Your task to perform on an android device: set the timer Image 0: 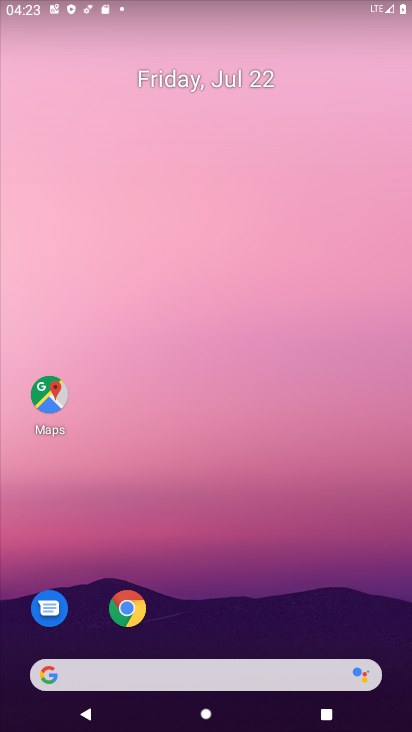
Step 0: drag from (234, 715) to (228, 197)
Your task to perform on an android device: set the timer Image 1: 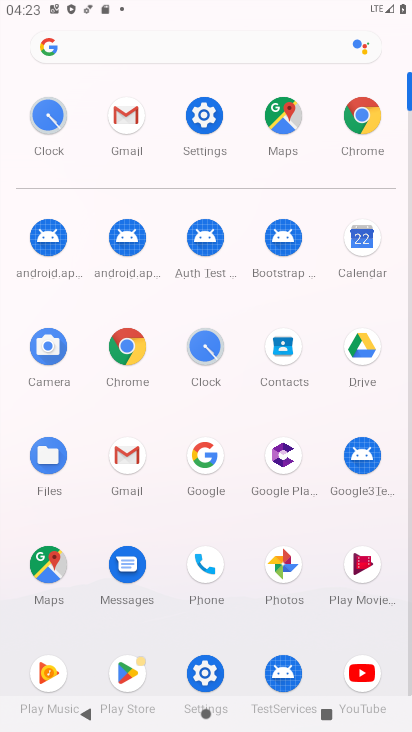
Step 1: click (211, 348)
Your task to perform on an android device: set the timer Image 2: 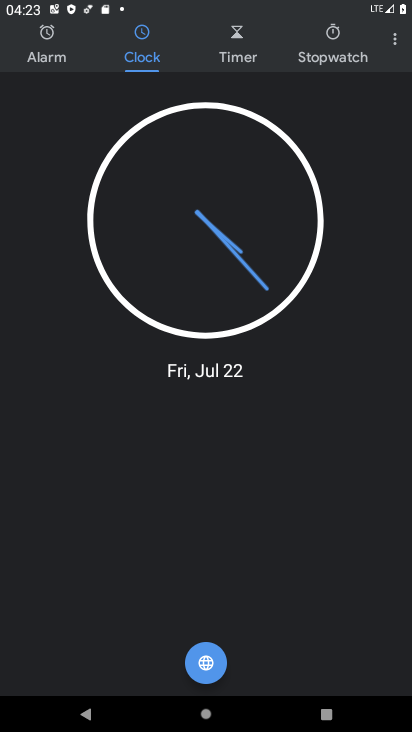
Step 2: click (236, 41)
Your task to perform on an android device: set the timer Image 3: 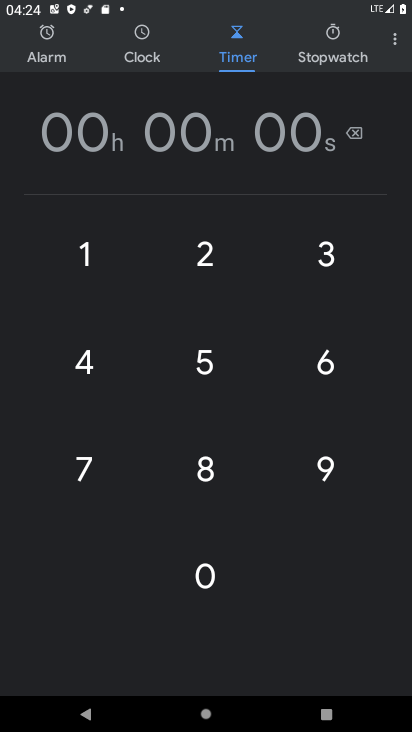
Step 3: click (206, 355)
Your task to perform on an android device: set the timer Image 4: 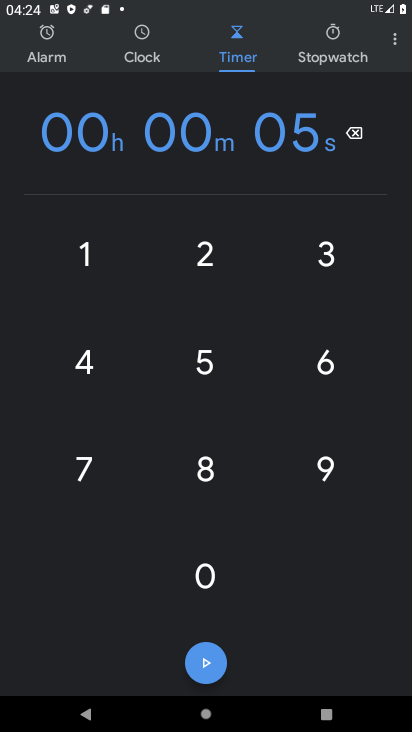
Step 4: click (200, 462)
Your task to perform on an android device: set the timer Image 5: 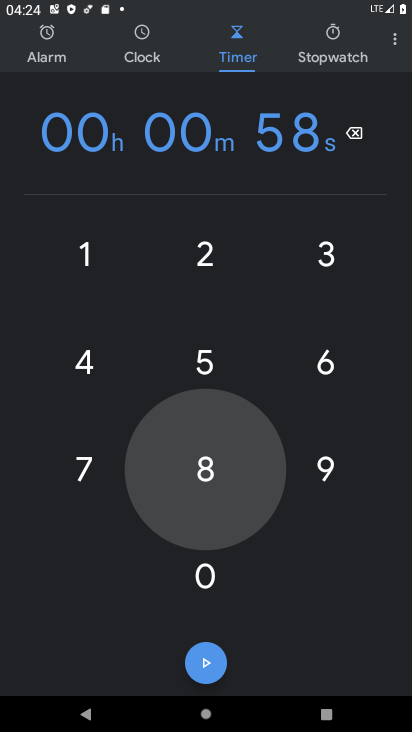
Step 5: click (80, 471)
Your task to perform on an android device: set the timer Image 6: 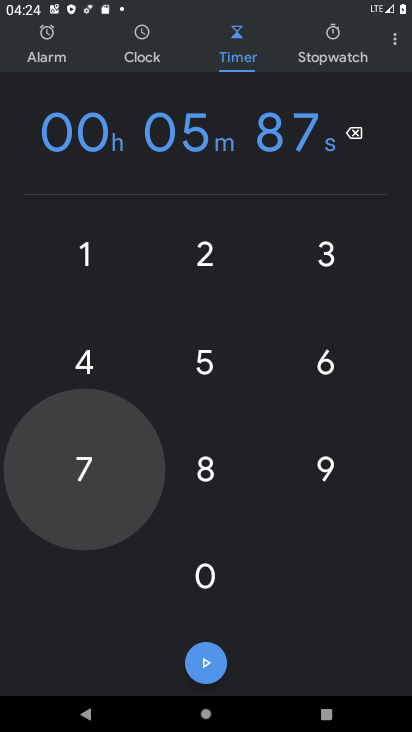
Step 6: click (90, 365)
Your task to perform on an android device: set the timer Image 7: 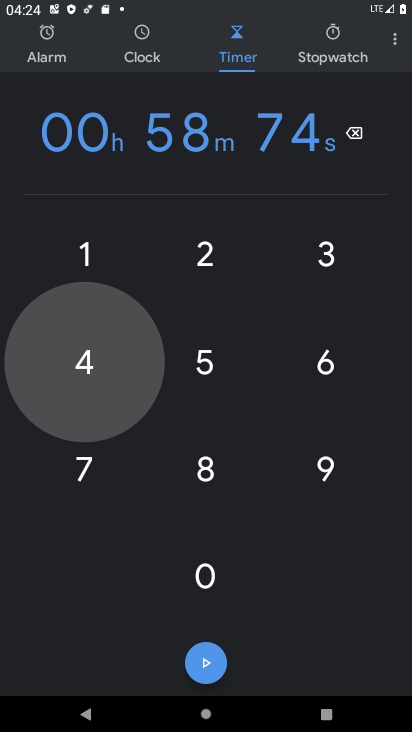
Step 7: click (84, 277)
Your task to perform on an android device: set the timer Image 8: 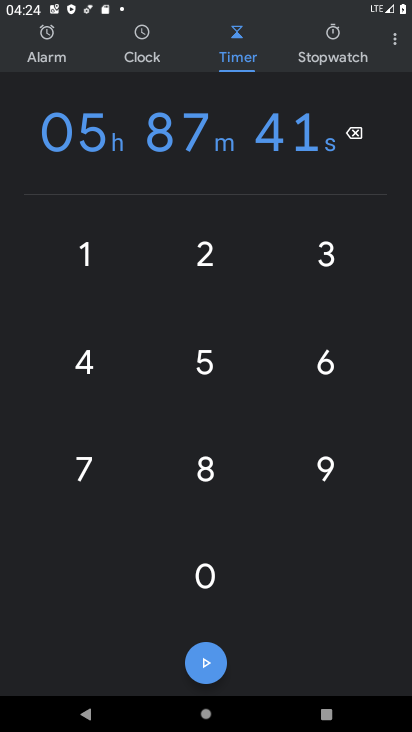
Step 8: click (211, 665)
Your task to perform on an android device: set the timer Image 9: 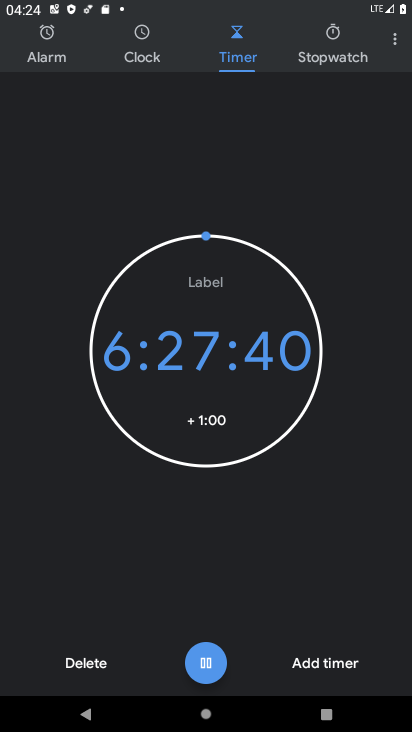
Step 9: task complete